Your task to perform on an android device: Open the Play Movies app and select the watchlist tab. Image 0: 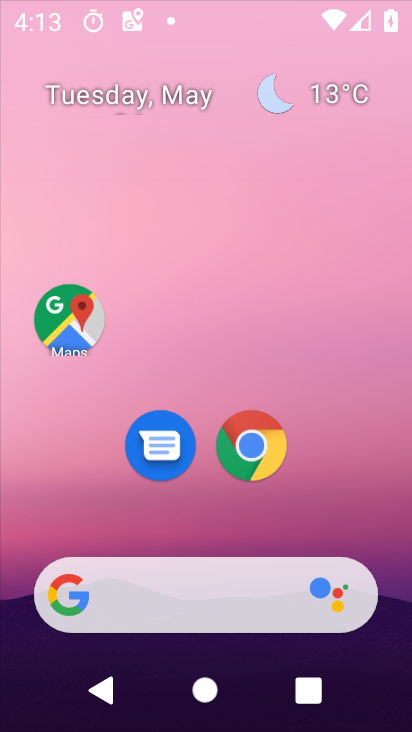
Step 0: click (233, 163)
Your task to perform on an android device: Open the Play Movies app and select the watchlist tab. Image 1: 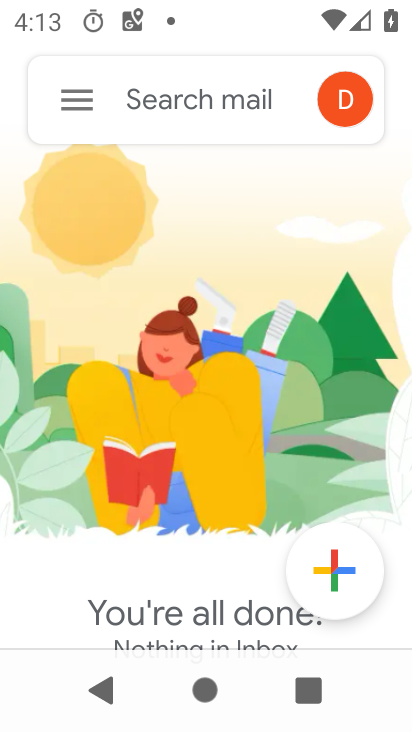
Step 1: press home button
Your task to perform on an android device: Open the Play Movies app and select the watchlist tab. Image 2: 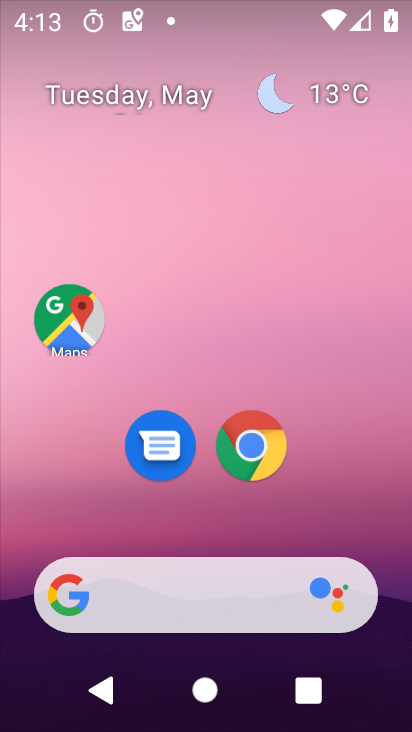
Step 2: drag from (204, 524) to (236, 46)
Your task to perform on an android device: Open the Play Movies app and select the watchlist tab. Image 3: 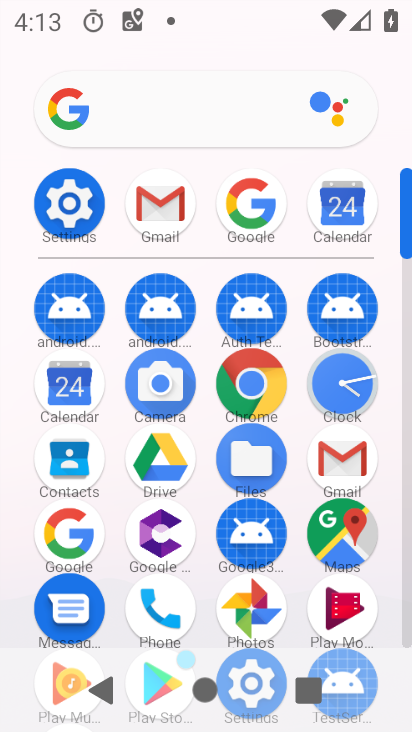
Step 3: click (339, 601)
Your task to perform on an android device: Open the Play Movies app and select the watchlist tab. Image 4: 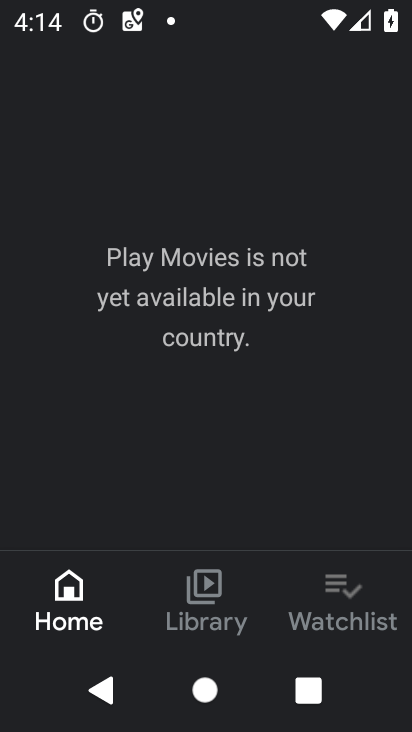
Step 4: click (355, 582)
Your task to perform on an android device: Open the Play Movies app and select the watchlist tab. Image 5: 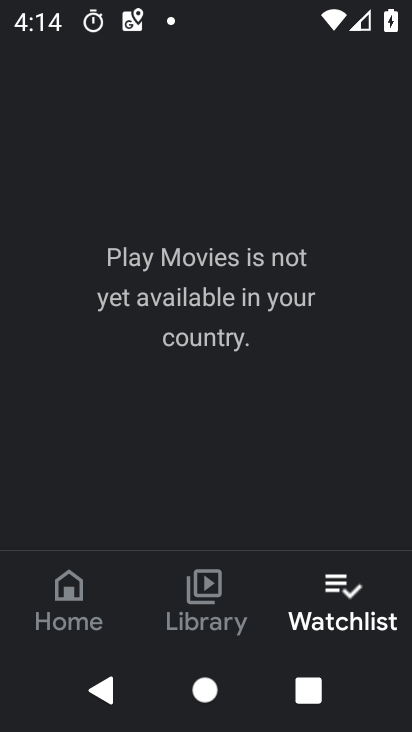
Step 5: task complete